Your task to perform on an android device: Show me productivity apps on the Play Store Image 0: 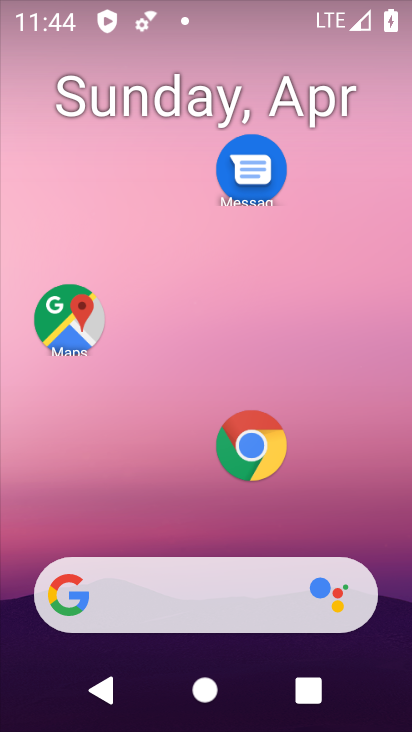
Step 0: drag from (138, 592) to (305, 68)
Your task to perform on an android device: Show me productivity apps on the Play Store Image 1: 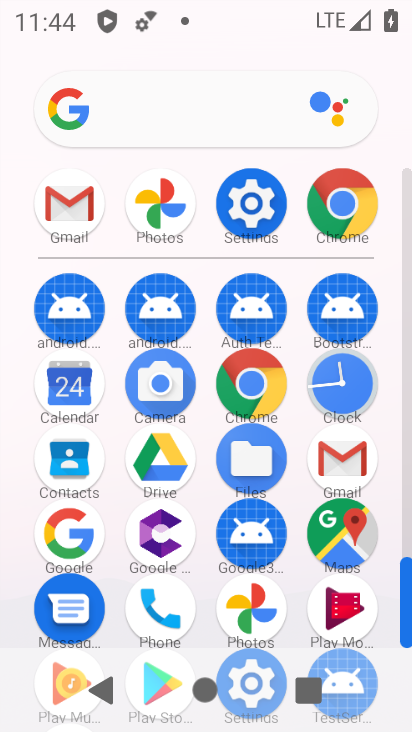
Step 1: drag from (121, 590) to (291, 232)
Your task to perform on an android device: Show me productivity apps on the Play Store Image 2: 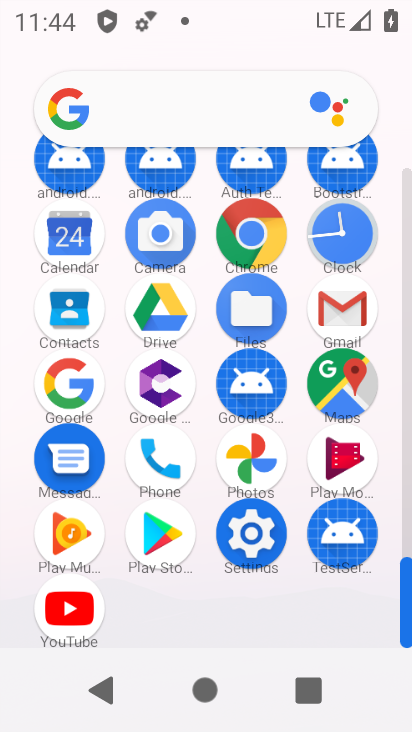
Step 2: click (158, 539)
Your task to perform on an android device: Show me productivity apps on the Play Store Image 3: 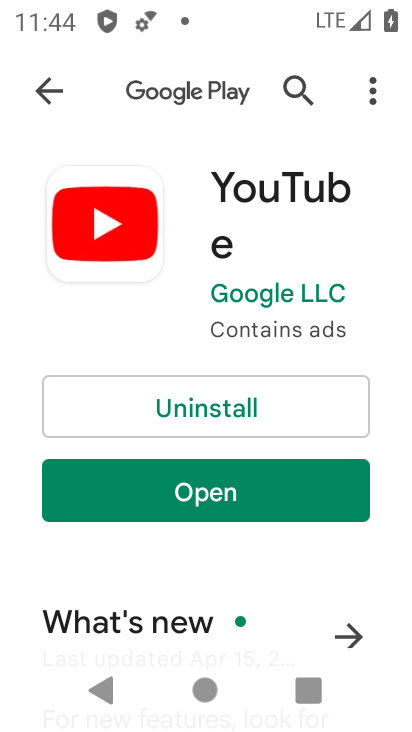
Step 3: click (209, 493)
Your task to perform on an android device: Show me productivity apps on the Play Store Image 4: 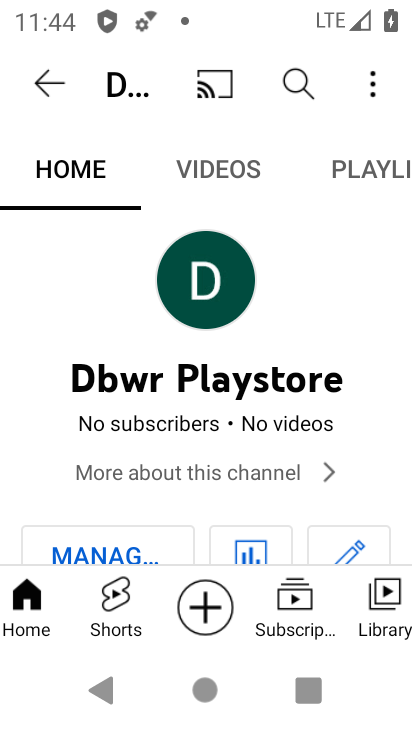
Step 4: press home button
Your task to perform on an android device: Show me productivity apps on the Play Store Image 5: 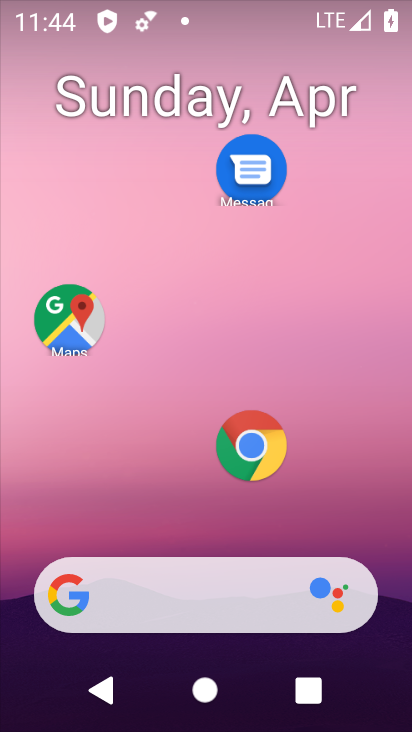
Step 5: drag from (154, 561) to (283, 202)
Your task to perform on an android device: Show me productivity apps on the Play Store Image 6: 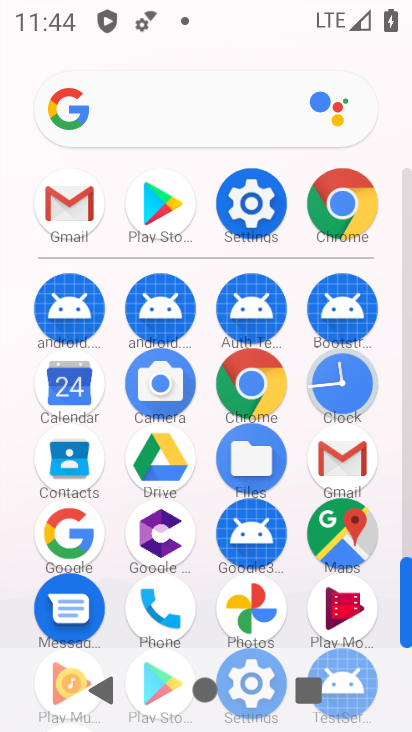
Step 6: drag from (185, 512) to (323, 164)
Your task to perform on an android device: Show me productivity apps on the Play Store Image 7: 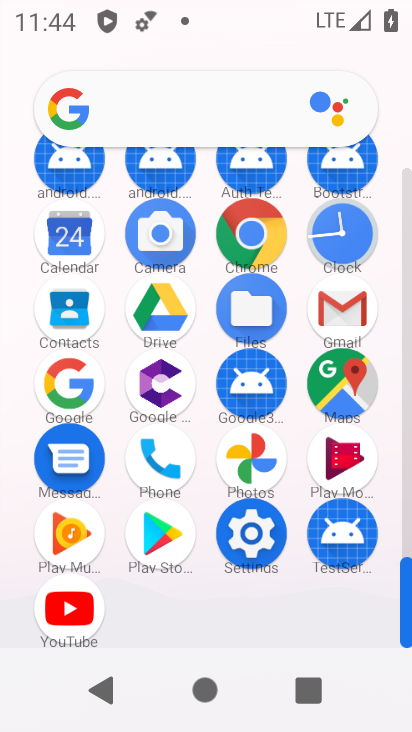
Step 7: click (156, 525)
Your task to perform on an android device: Show me productivity apps on the Play Store Image 8: 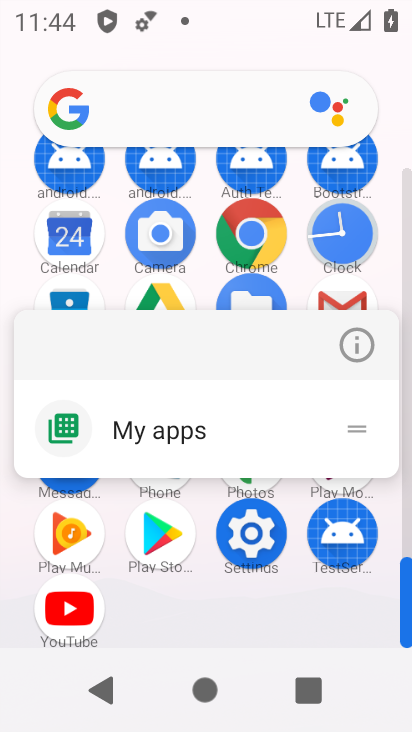
Step 8: click (171, 541)
Your task to perform on an android device: Show me productivity apps on the Play Store Image 9: 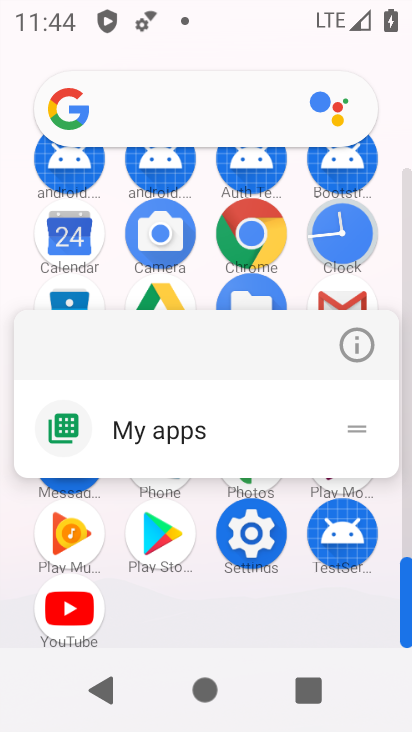
Step 9: click (147, 539)
Your task to perform on an android device: Show me productivity apps on the Play Store Image 10: 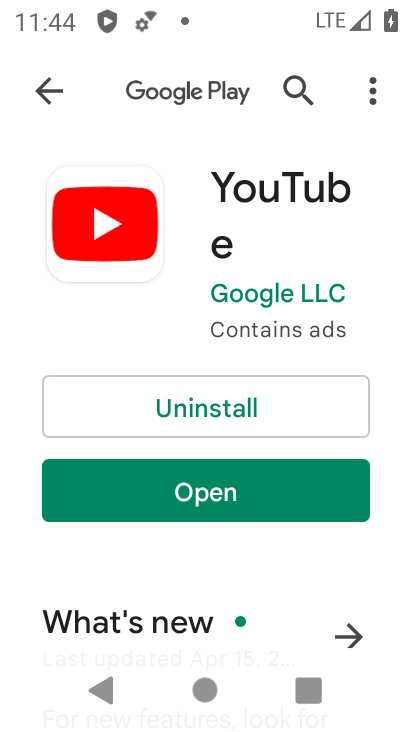
Step 10: click (218, 479)
Your task to perform on an android device: Show me productivity apps on the Play Store Image 11: 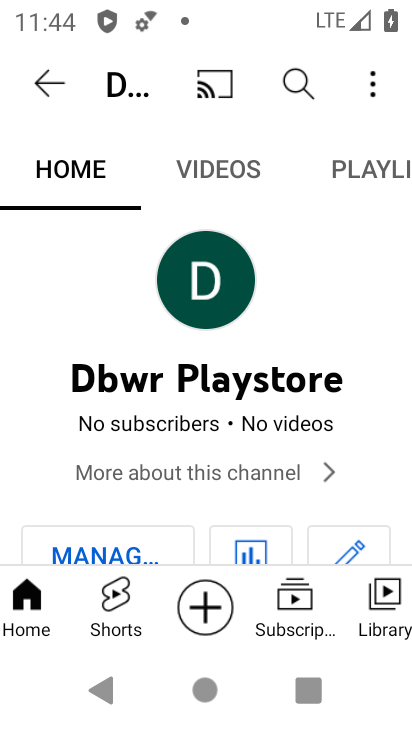
Step 11: task complete